Your task to perform on an android device: turn on priority inbox in the gmail app Image 0: 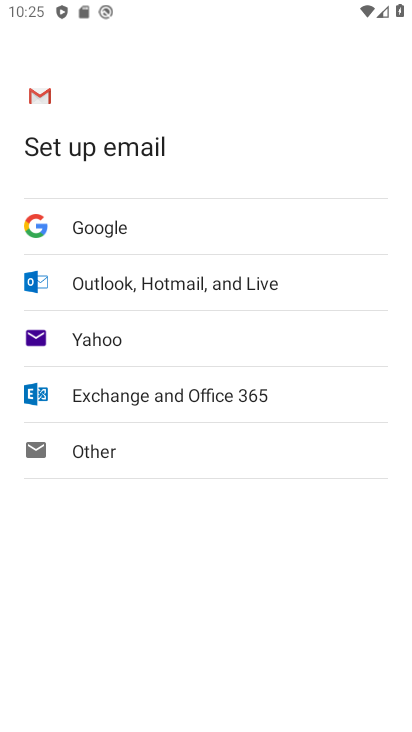
Step 0: click (51, 53)
Your task to perform on an android device: turn on priority inbox in the gmail app Image 1: 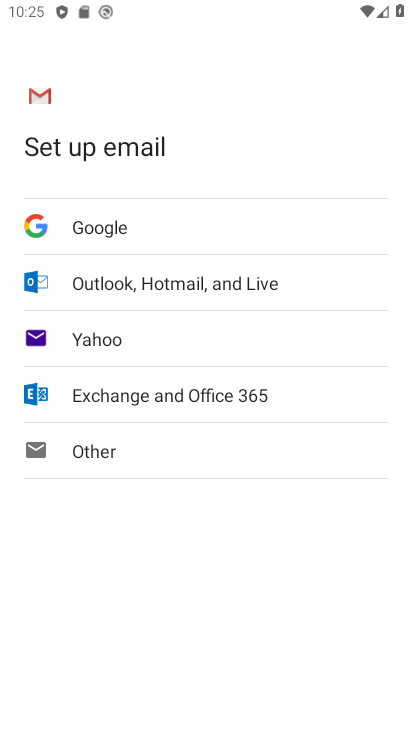
Step 1: task complete